Your task to perform on an android device: see tabs open on other devices in the chrome app Image 0: 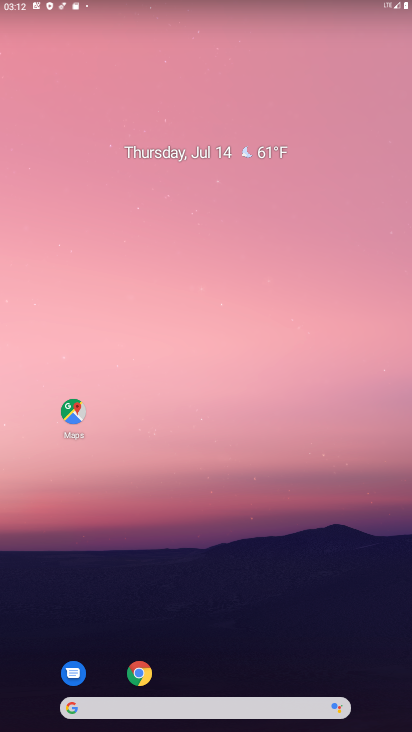
Step 0: click (143, 678)
Your task to perform on an android device: see tabs open on other devices in the chrome app Image 1: 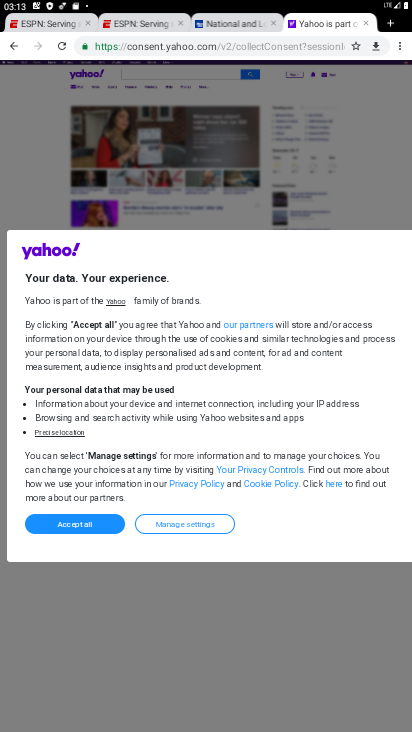
Step 1: click (93, 515)
Your task to perform on an android device: see tabs open on other devices in the chrome app Image 2: 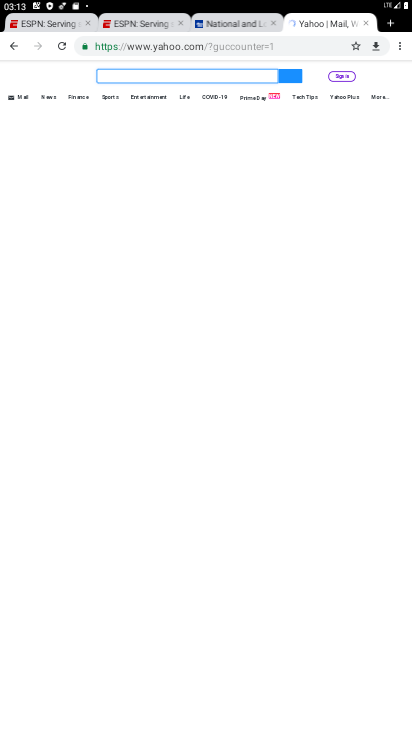
Step 2: click (393, 44)
Your task to perform on an android device: see tabs open on other devices in the chrome app Image 3: 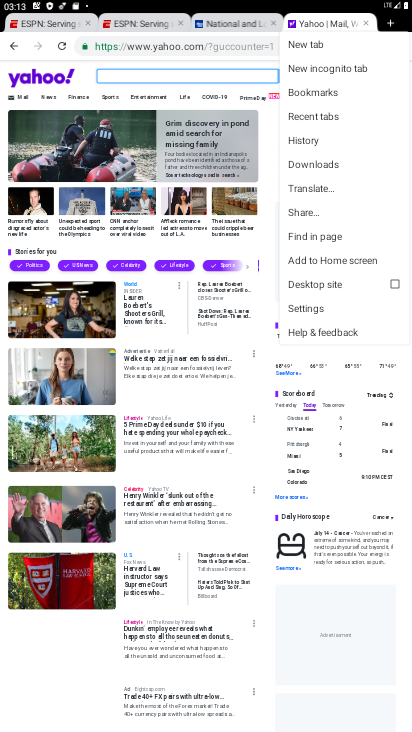
Step 3: click (330, 110)
Your task to perform on an android device: see tabs open on other devices in the chrome app Image 4: 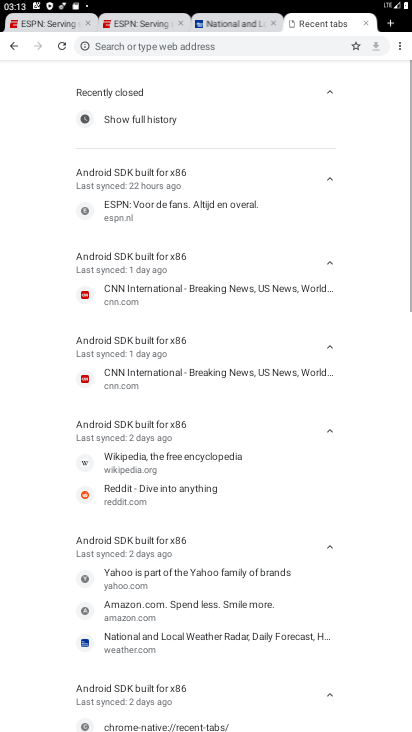
Step 4: task complete